Your task to perform on an android device: toggle notification dots Image 0: 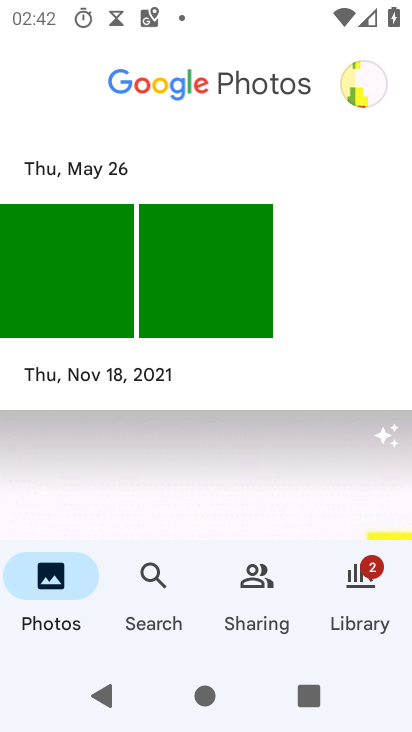
Step 0: press home button
Your task to perform on an android device: toggle notification dots Image 1: 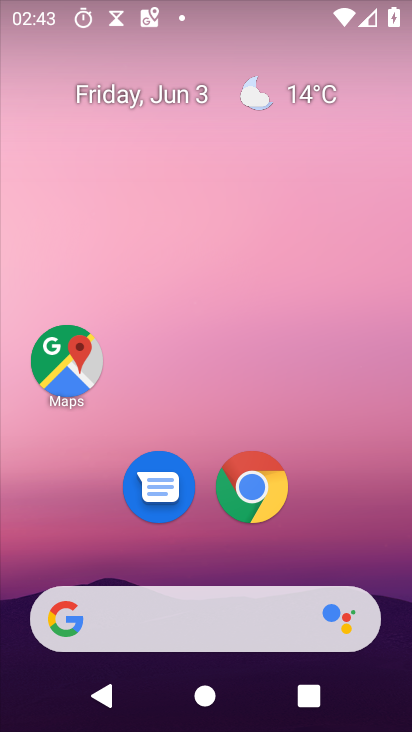
Step 1: drag from (322, 375) to (125, 85)
Your task to perform on an android device: toggle notification dots Image 2: 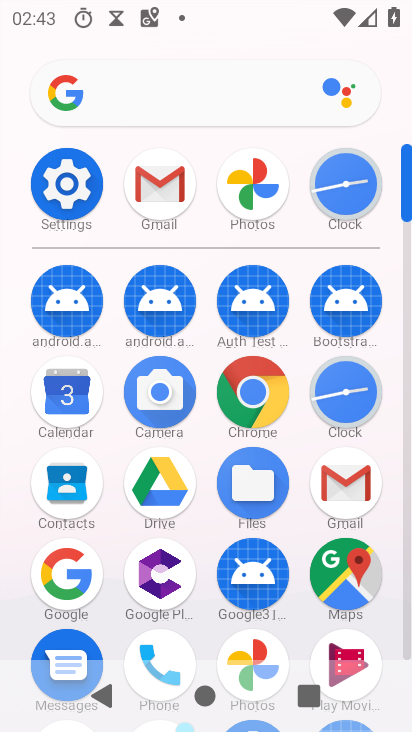
Step 2: click (65, 187)
Your task to perform on an android device: toggle notification dots Image 3: 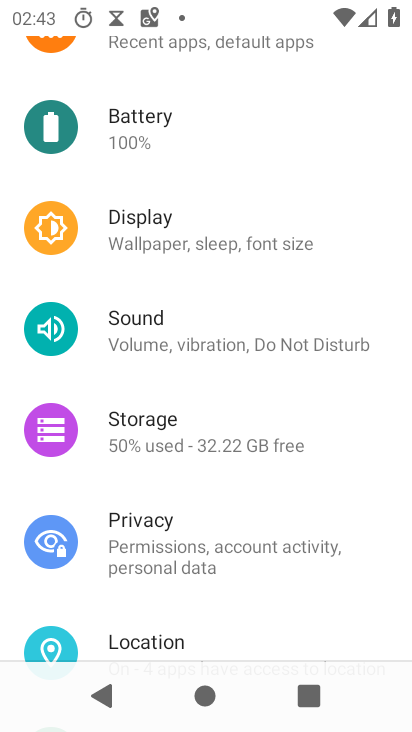
Step 3: drag from (188, 121) to (190, 470)
Your task to perform on an android device: toggle notification dots Image 4: 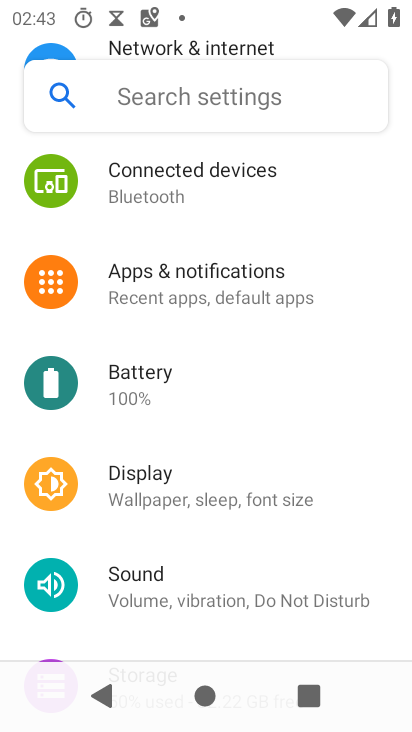
Step 4: click (194, 279)
Your task to perform on an android device: toggle notification dots Image 5: 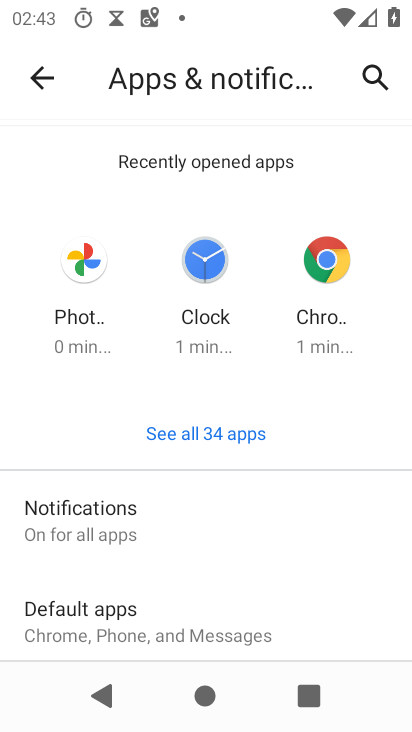
Step 5: click (188, 520)
Your task to perform on an android device: toggle notification dots Image 6: 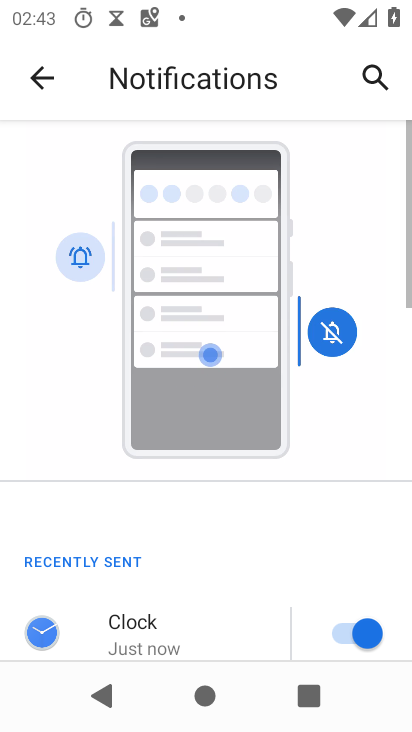
Step 6: drag from (229, 441) to (246, 18)
Your task to perform on an android device: toggle notification dots Image 7: 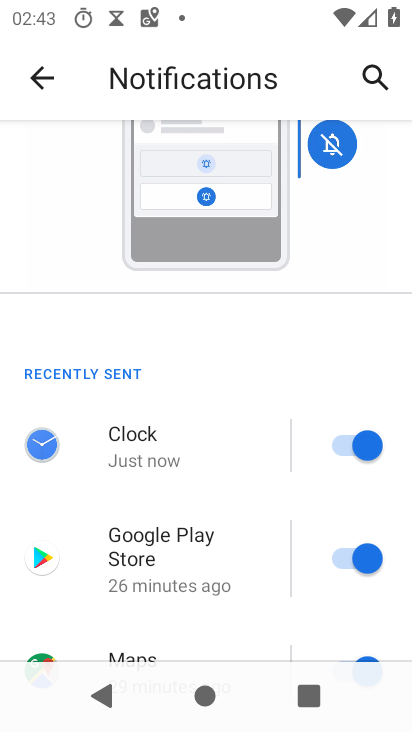
Step 7: drag from (195, 546) to (145, 17)
Your task to perform on an android device: toggle notification dots Image 8: 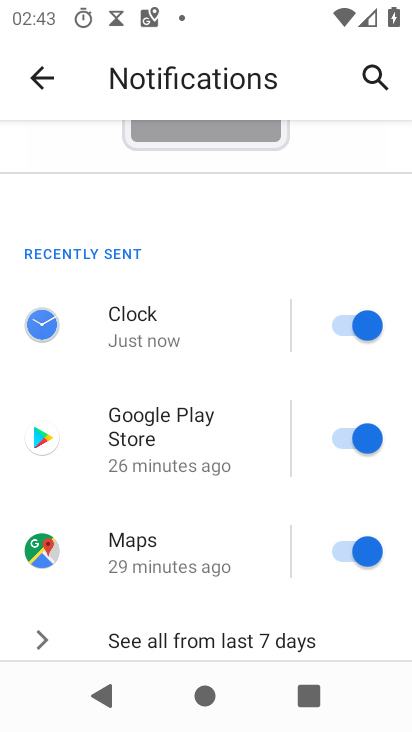
Step 8: drag from (252, 585) to (135, 69)
Your task to perform on an android device: toggle notification dots Image 9: 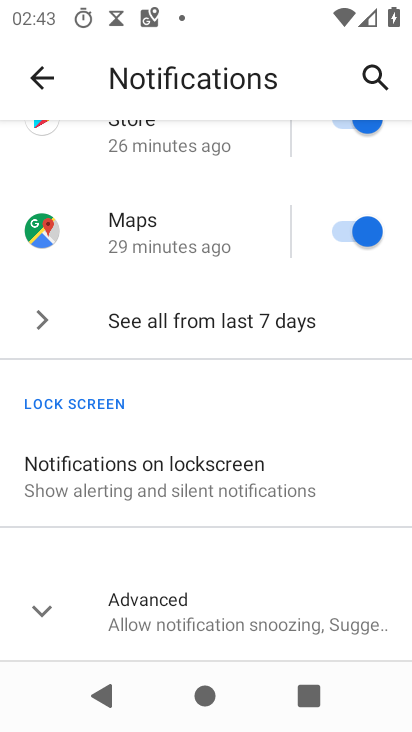
Step 9: click (278, 614)
Your task to perform on an android device: toggle notification dots Image 10: 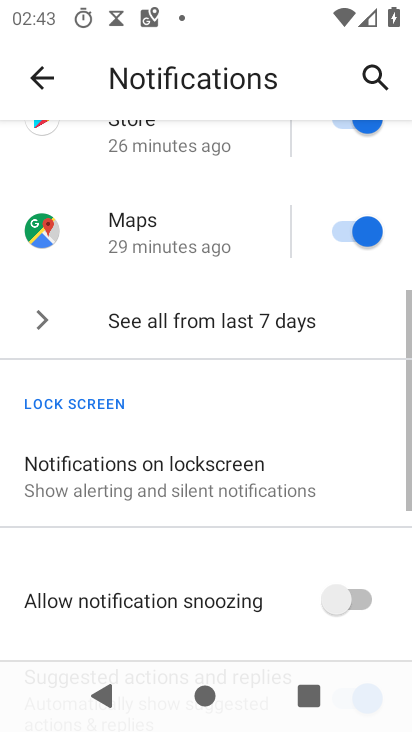
Step 10: drag from (245, 554) to (211, 140)
Your task to perform on an android device: toggle notification dots Image 11: 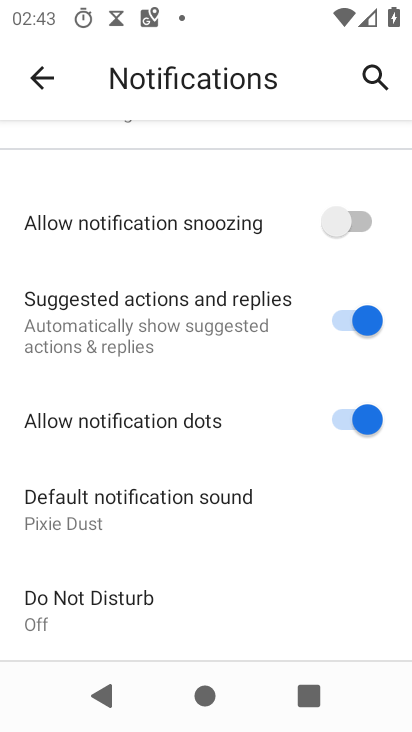
Step 11: click (362, 422)
Your task to perform on an android device: toggle notification dots Image 12: 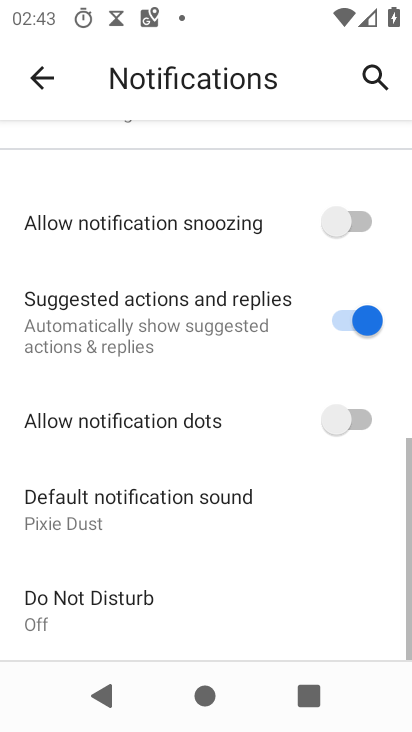
Step 12: task complete